Your task to perform on an android device: Open the web browser Image 0: 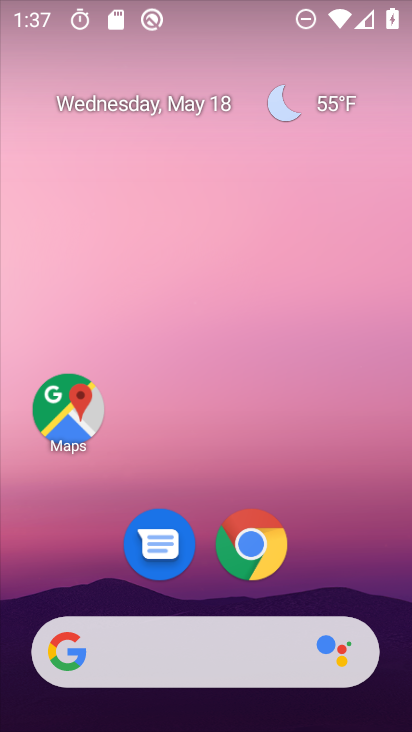
Step 0: click (269, 546)
Your task to perform on an android device: Open the web browser Image 1: 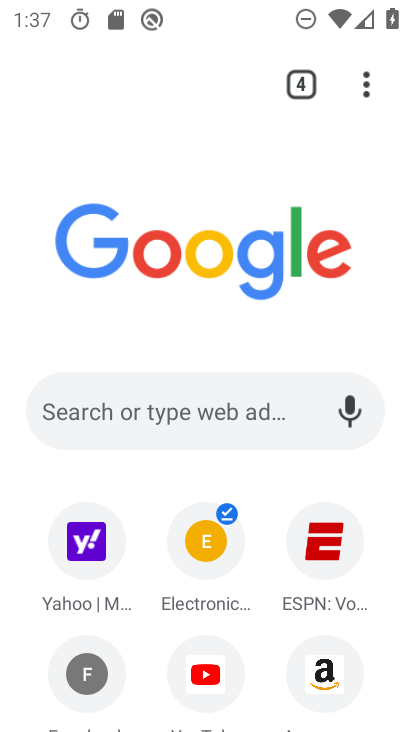
Step 1: task complete